Your task to perform on an android device: Go to Google Image 0: 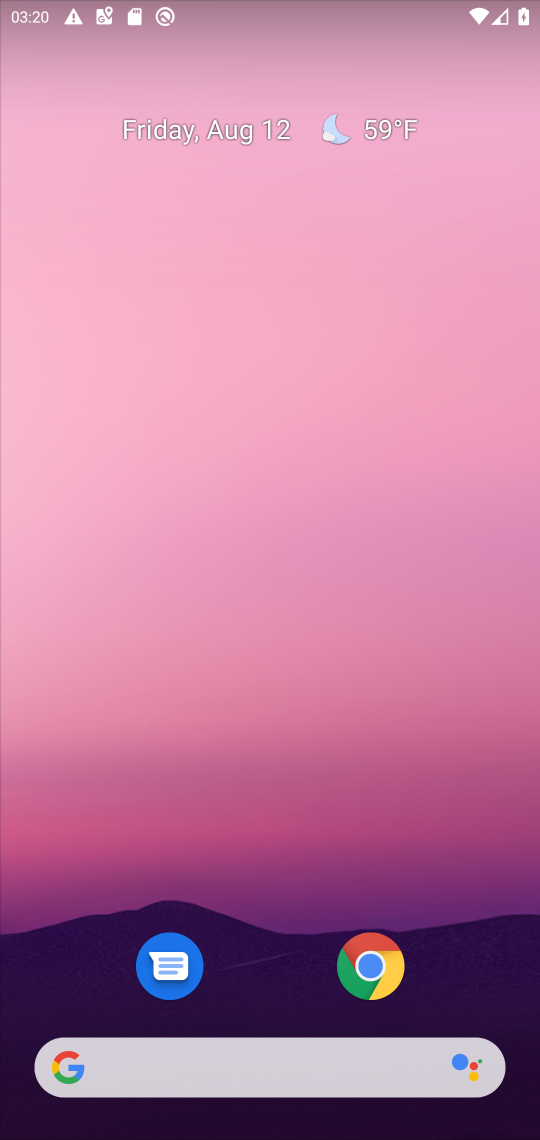
Step 0: drag from (305, 781) to (326, 35)
Your task to perform on an android device: Go to Google Image 1: 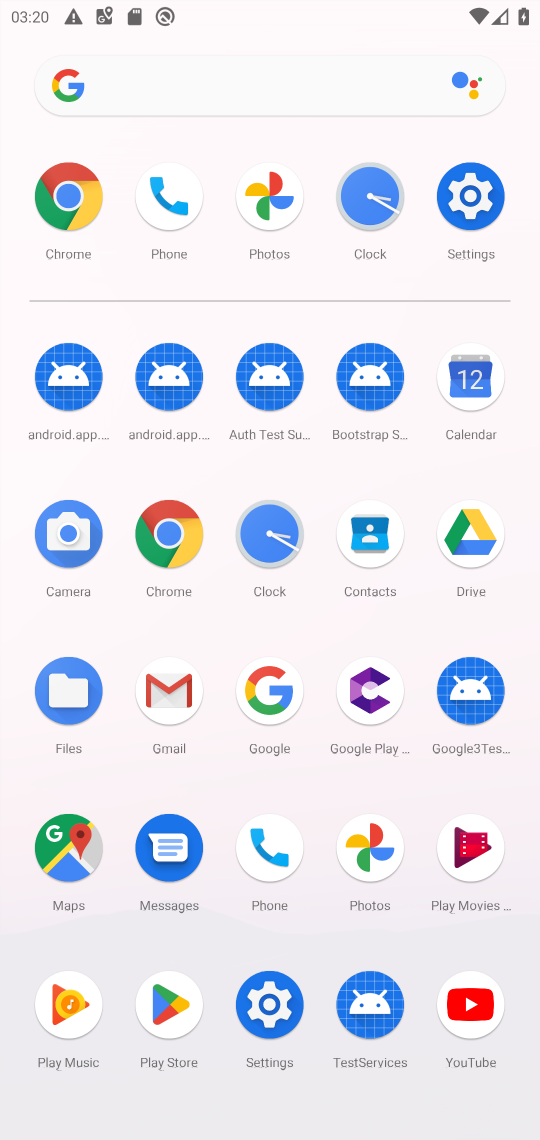
Step 1: click (262, 684)
Your task to perform on an android device: Go to Google Image 2: 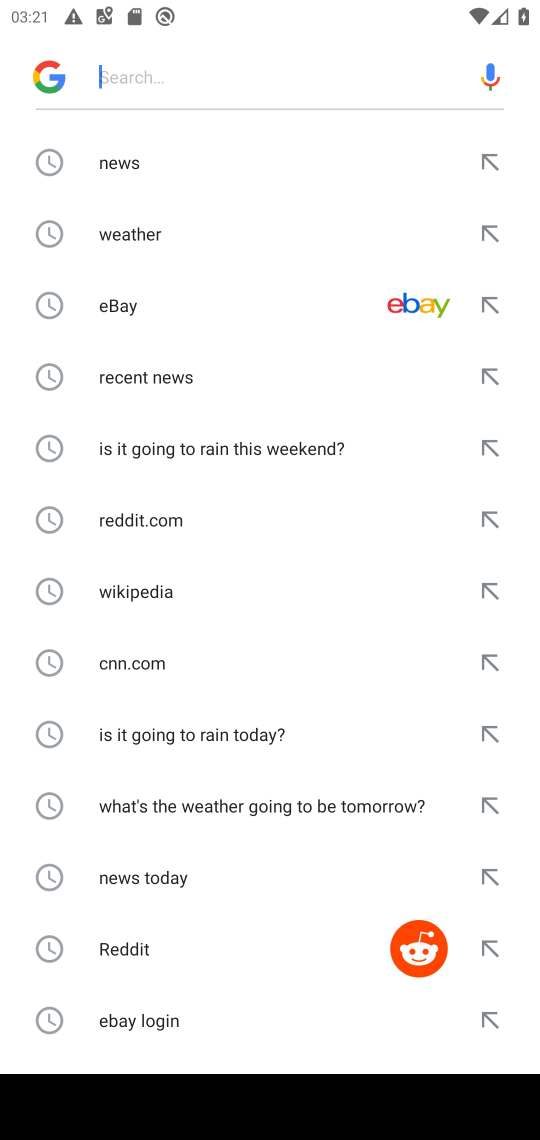
Step 2: task complete